Your task to perform on an android device: Open calendar and show me the first week of next month Image 0: 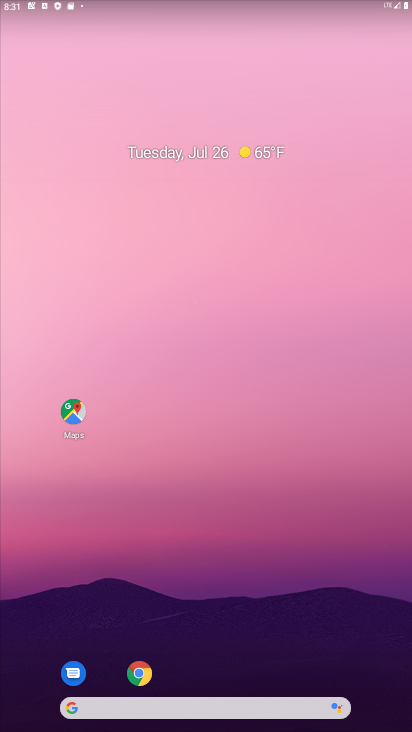
Step 0: drag from (191, 655) to (151, 192)
Your task to perform on an android device: Open calendar and show me the first week of next month Image 1: 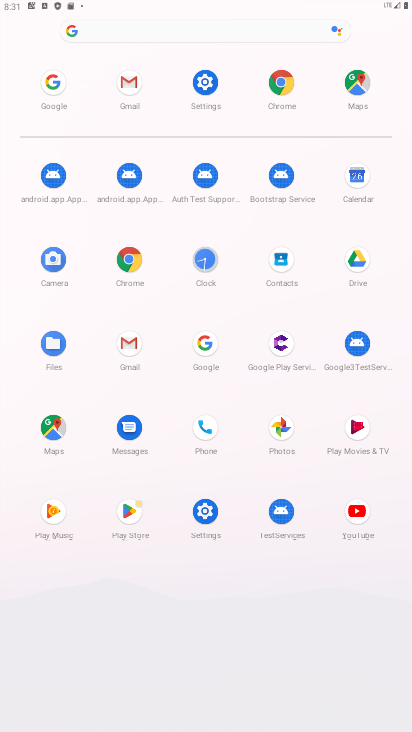
Step 1: click (348, 165)
Your task to perform on an android device: Open calendar and show me the first week of next month Image 2: 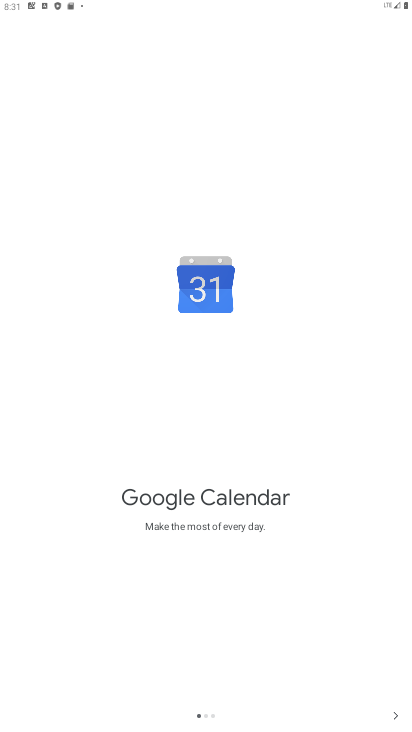
Step 2: click (384, 711)
Your task to perform on an android device: Open calendar and show me the first week of next month Image 3: 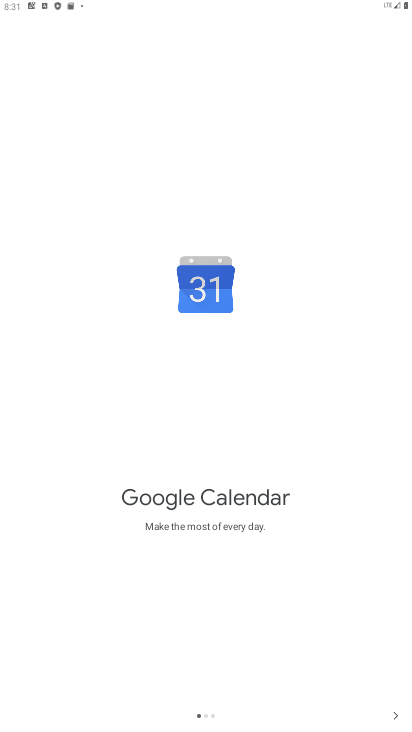
Step 3: click (384, 711)
Your task to perform on an android device: Open calendar and show me the first week of next month Image 4: 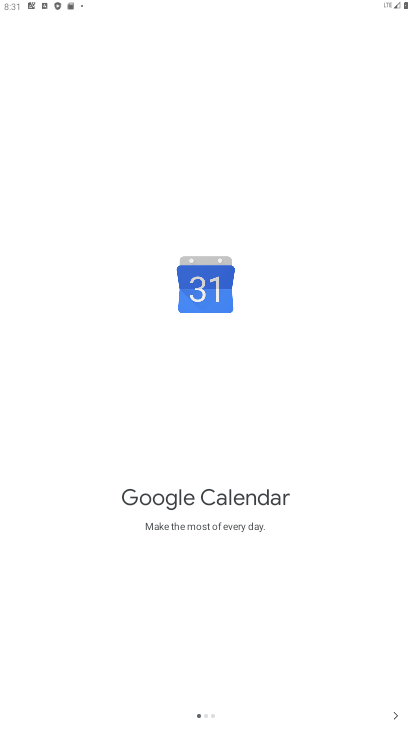
Step 4: click (384, 711)
Your task to perform on an android device: Open calendar and show me the first week of next month Image 5: 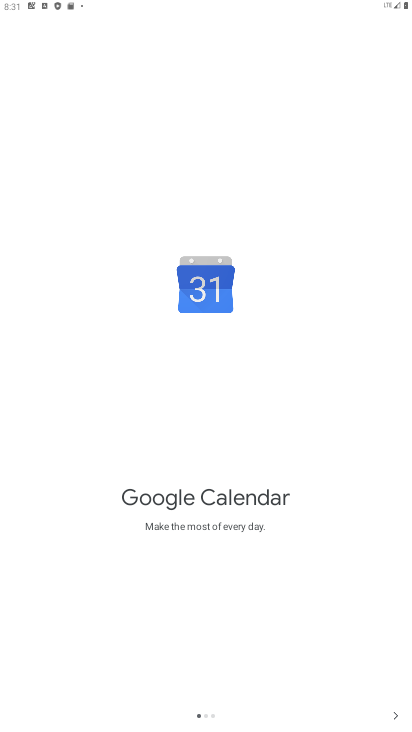
Step 5: click (393, 711)
Your task to perform on an android device: Open calendar and show me the first week of next month Image 6: 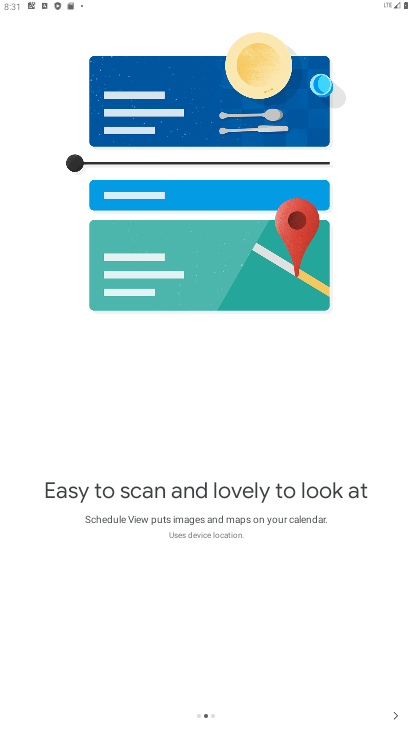
Step 6: click (393, 711)
Your task to perform on an android device: Open calendar and show me the first week of next month Image 7: 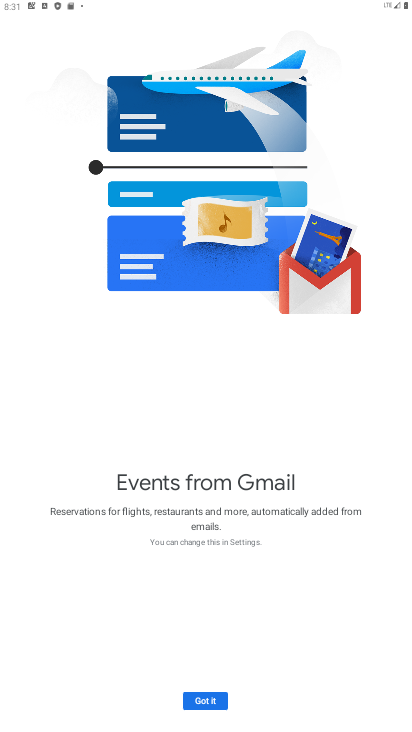
Step 7: click (215, 702)
Your task to perform on an android device: Open calendar and show me the first week of next month Image 8: 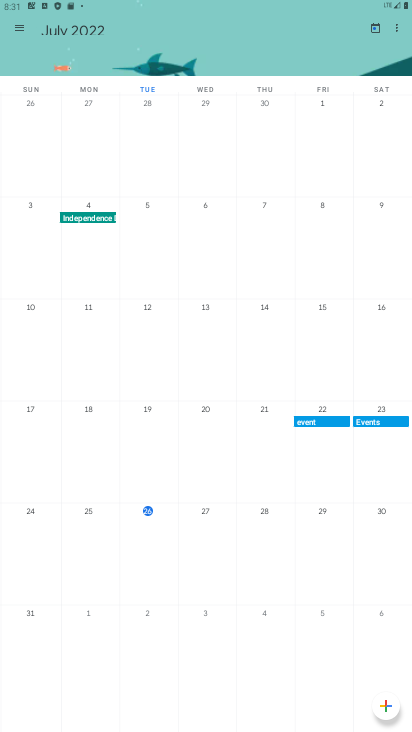
Step 8: drag from (341, 272) to (24, 271)
Your task to perform on an android device: Open calendar and show me the first week of next month Image 9: 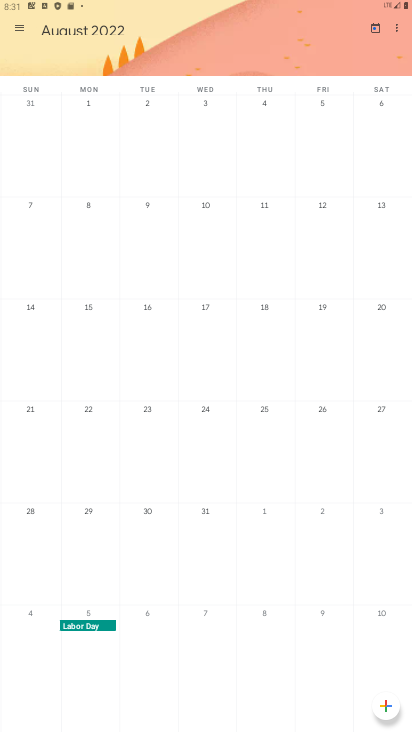
Step 9: click (40, 128)
Your task to perform on an android device: Open calendar and show me the first week of next month Image 10: 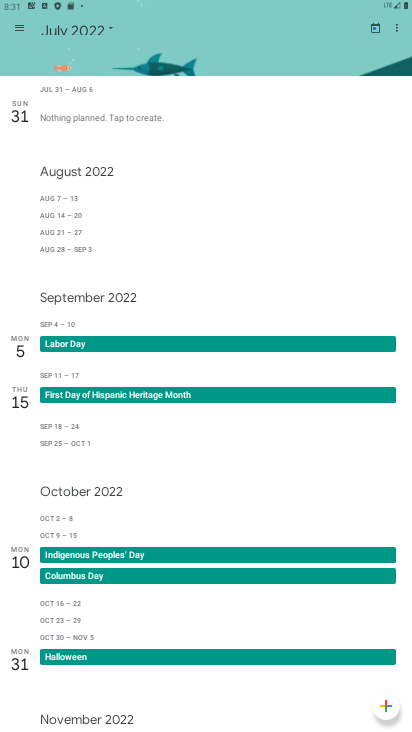
Step 10: click (112, 29)
Your task to perform on an android device: Open calendar and show me the first week of next month Image 11: 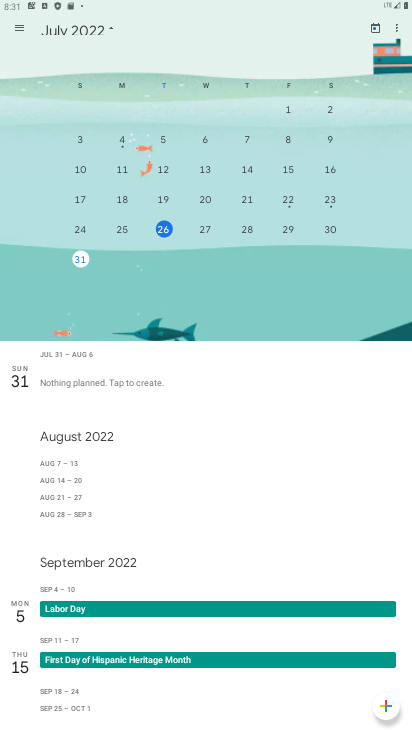
Step 11: drag from (334, 232) to (3, 215)
Your task to perform on an android device: Open calendar and show me the first week of next month Image 12: 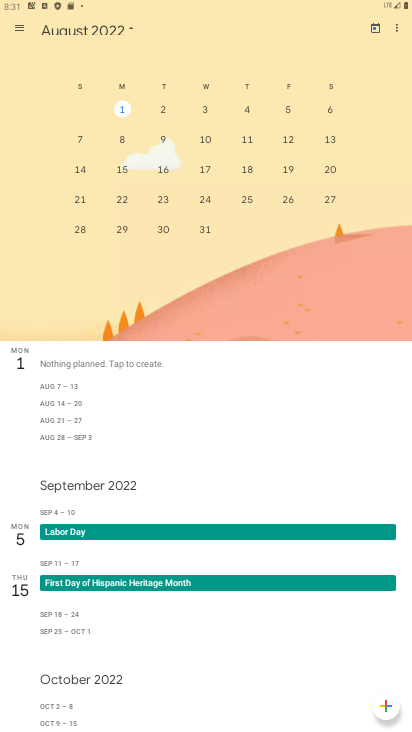
Step 12: click (130, 106)
Your task to perform on an android device: Open calendar and show me the first week of next month Image 13: 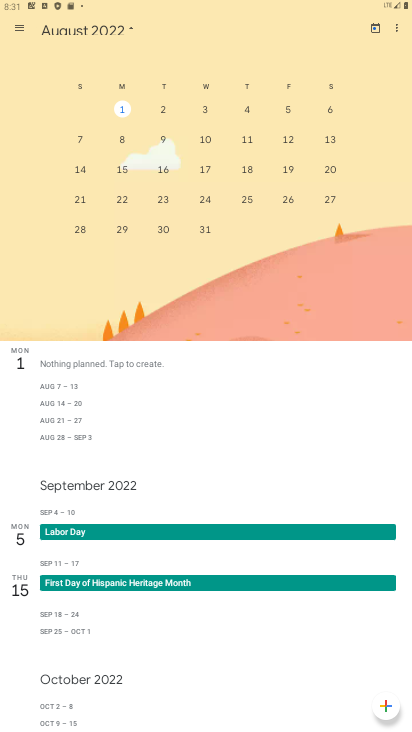
Step 13: click (160, 113)
Your task to perform on an android device: Open calendar and show me the first week of next month Image 14: 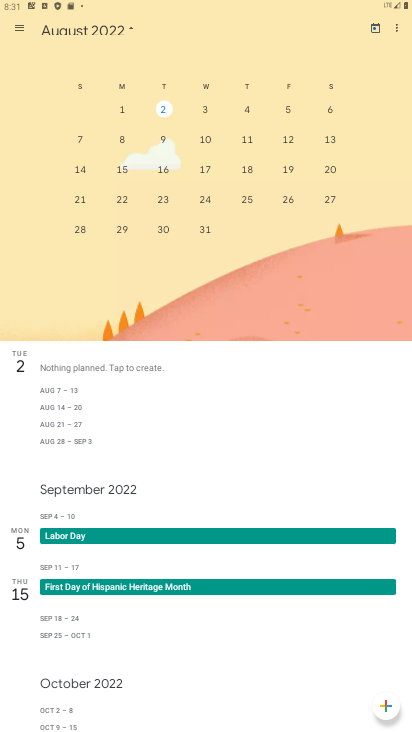
Step 14: task complete